Your task to perform on an android device: search for starred emails in the gmail app Image 0: 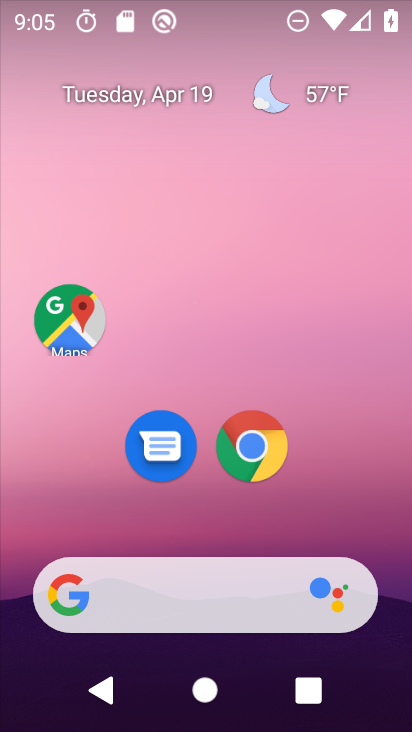
Step 0: drag from (367, 531) to (308, 143)
Your task to perform on an android device: search for starred emails in the gmail app Image 1: 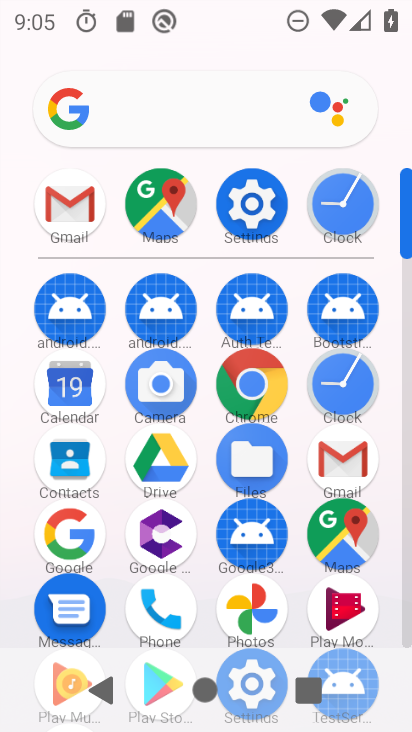
Step 1: click (340, 470)
Your task to perform on an android device: search for starred emails in the gmail app Image 2: 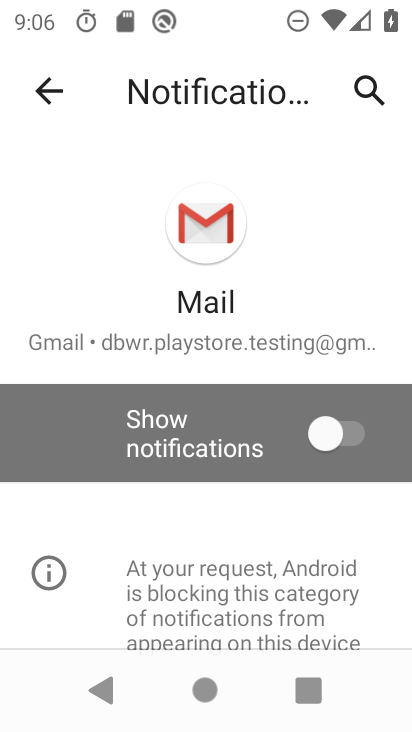
Step 2: press back button
Your task to perform on an android device: search for starred emails in the gmail app Image 3: 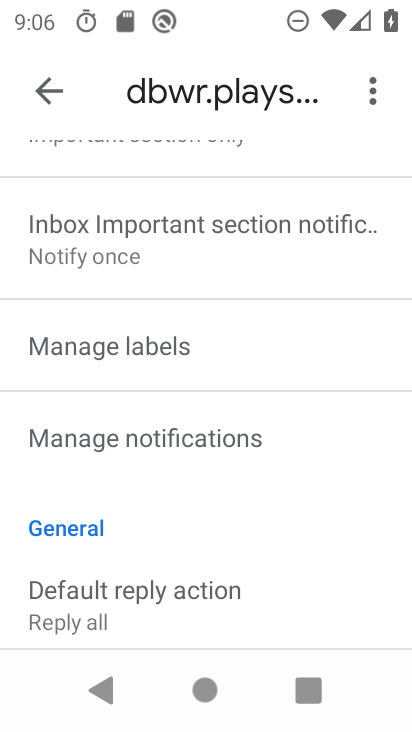
Step 3: press back button
Your task to perform on an android device: search for starred emails in the gmail app Image 4: 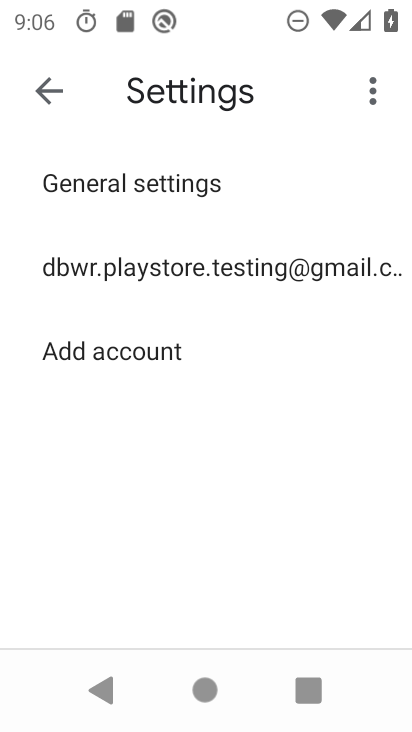
Step 4: press back button
Your task to perform on an android device: search for starred emails in the gmail app Image 5: 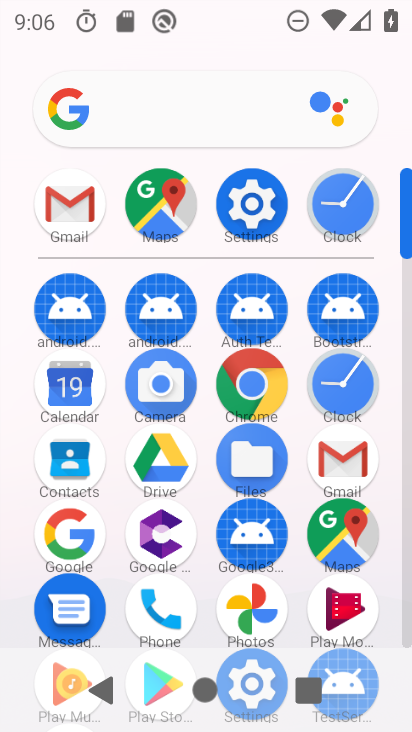
Step 5: click (320, 469)
Your task to perform on an android device: search for starred emails in the gmail app Image 6: 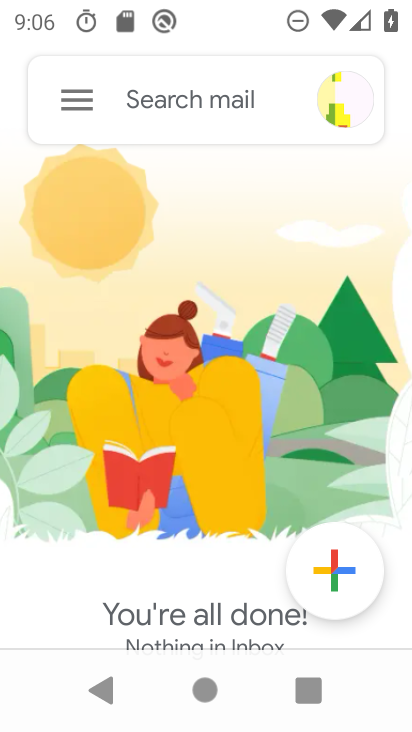
Step 6: click (90, 114)
Your task to perform on an android device: search for starred emails in the gmail app Image 7: 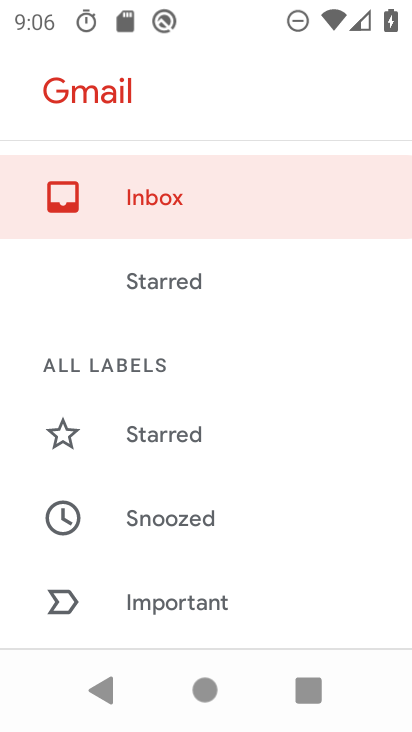
Step 7: click (179, 431)
Your task to perform on an android device: search for starred emails in the gmail app Image 8: 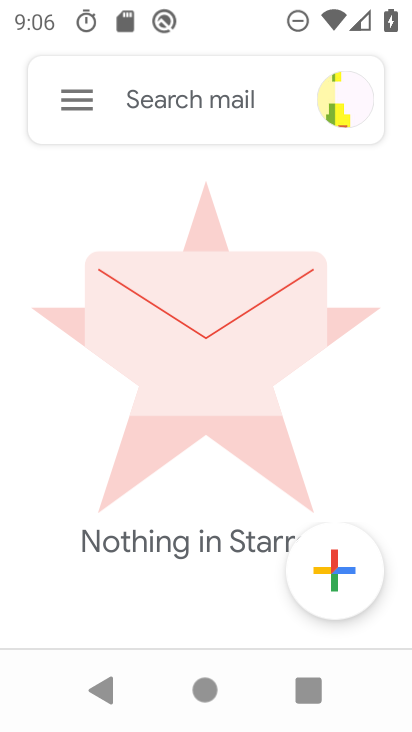
Step 8: task complete